Your task to perform on an android device: open app "DuckDuckGo Privacy Browser" Image 0: 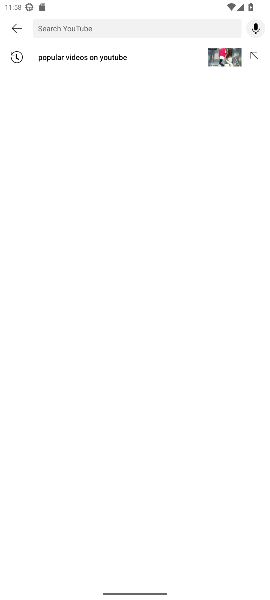
Step 0: press home button
Your task to perform on an android device: open app "DuckDuckGo Privacy Browser" Image 1: 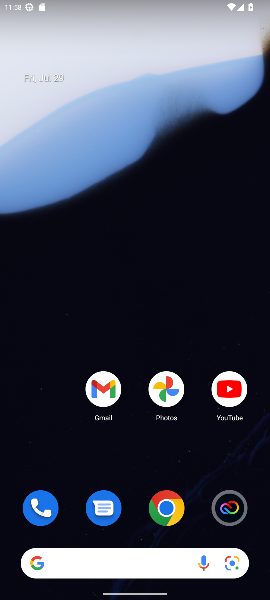
Step 1: drag from (121, 566) to (121, 27)
Your task to perform on an android device: open app "DuckDuckGo Privacy Browser" Image 2: 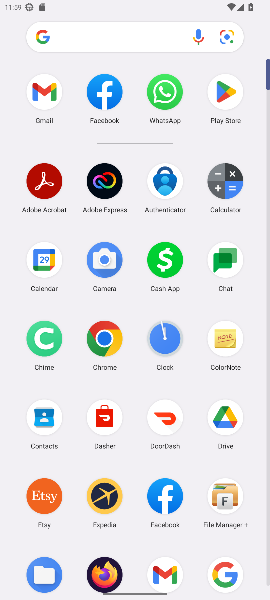
Step 2: click (219, 88)
Your task to perform on an android device: open app "DuckDuckGo Privacy Browser" Image 3: 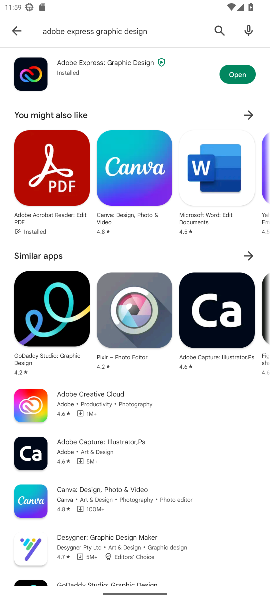
Step 3: click (218, 30)
Your task to perform on an android device: open app "DuckDuckGo Privacy Browser" Image 4: 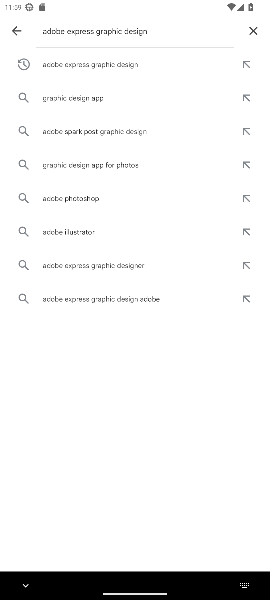
Step 4: click (253, 29)
Your task to perform on an android device: open app "DuckDuckGo Privacy Browser" Image 5: 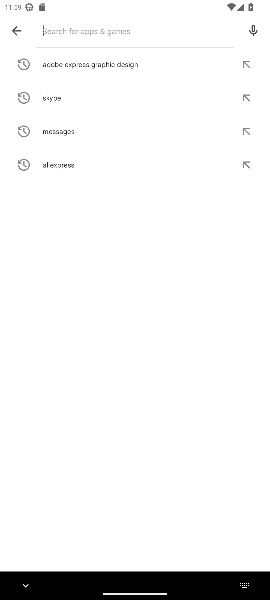
Step 5: type "duckduckgo privacy browser"
Your task to perform on an android device: open app "DuckDuckGo Privacy Browser" Image 6: 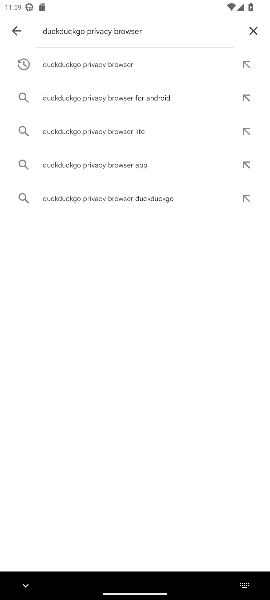
Step 6: click (135, 56)
Your task to perform on an android device: open app "DuckDuckGo Privacy Browser" Image 7: 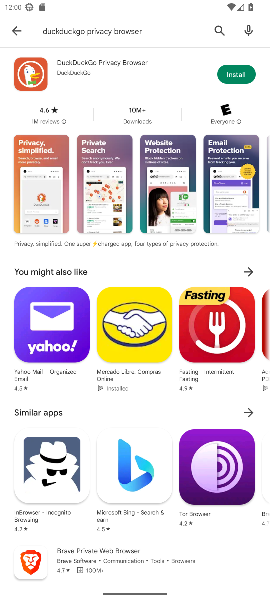
Step 7: task complete